Your task to perform on an android device: Open Chrome and go to the settings page Image 0: 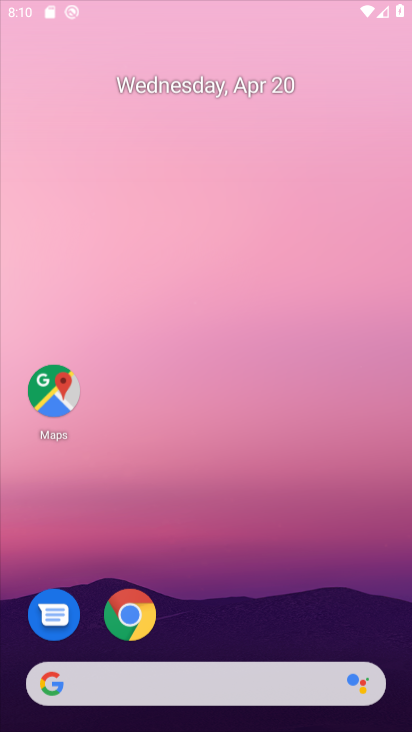
Step 0: drag from (403, 530) to (404, 0)
Your task to perform on an android device: Open Chrome and go to the settings page Image 1: 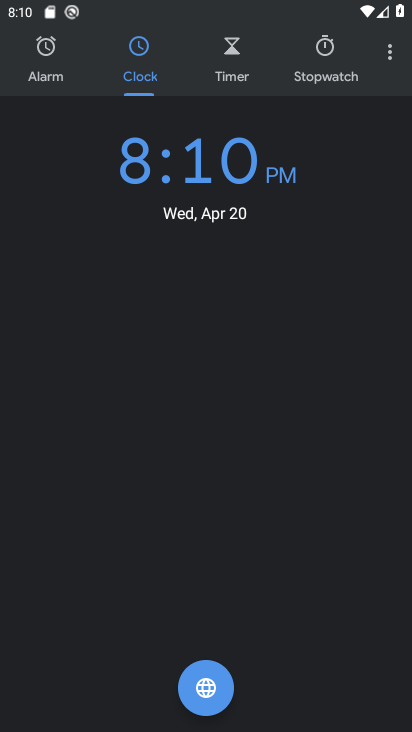
Step 1: press home button
Your task to perform on an android device: Open Chrome and go to the settings page Image 2: 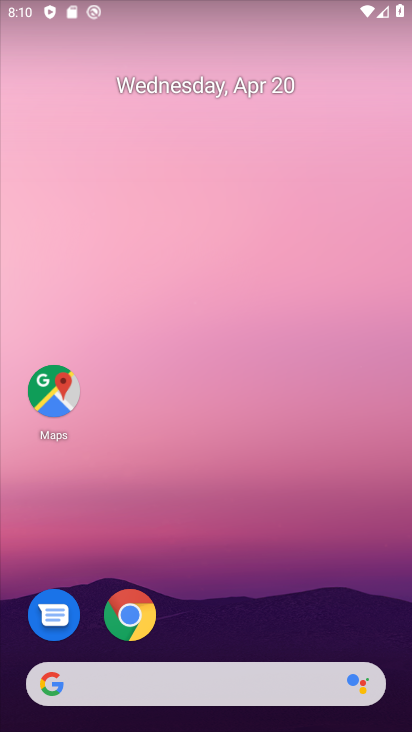
Step 2: drag from (254, 680) to (283, 68)
Your task to perform on an android device: Open Chrome and go to the settings page Image 3: 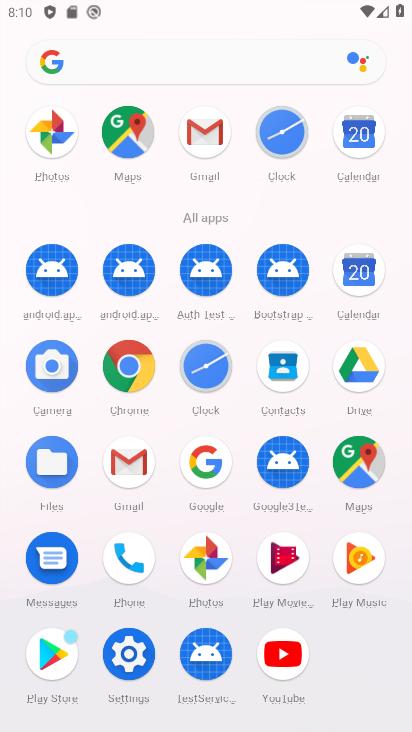
Step 3: click (132, 379)
Your task to perform on an android device: Open Chrome and go to the settings page Image 4: 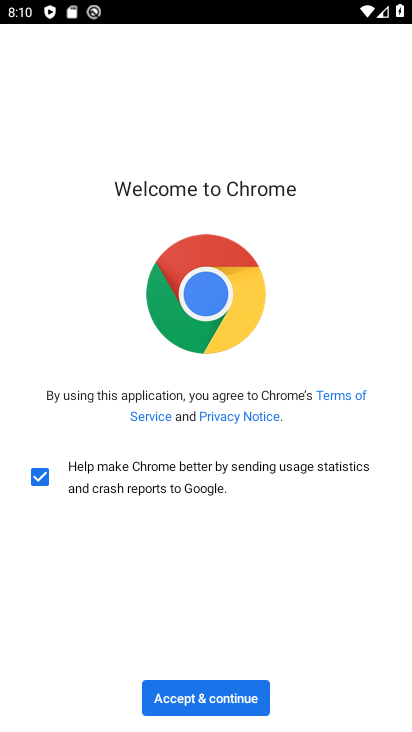
Step 4: click (220, 688)
Your task to perform on an android device: Open Chrome and go to the settings page Image 5: 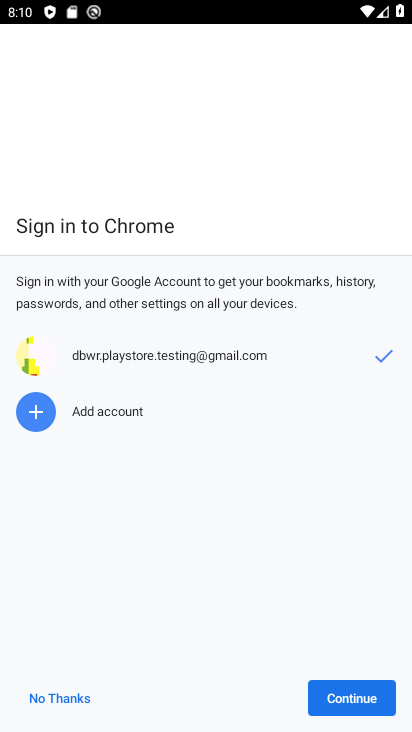
Step 5: click (383, 689)
Your task to perform on an android device: Open Chrome and go to the settings page Image 6: 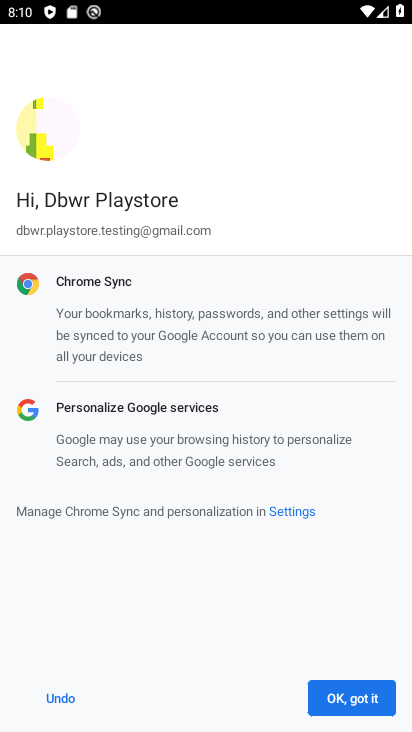
Step 6: click (383, 688)
Your task to perform on an android device: Open Chrome and go to the settings page Image 7: 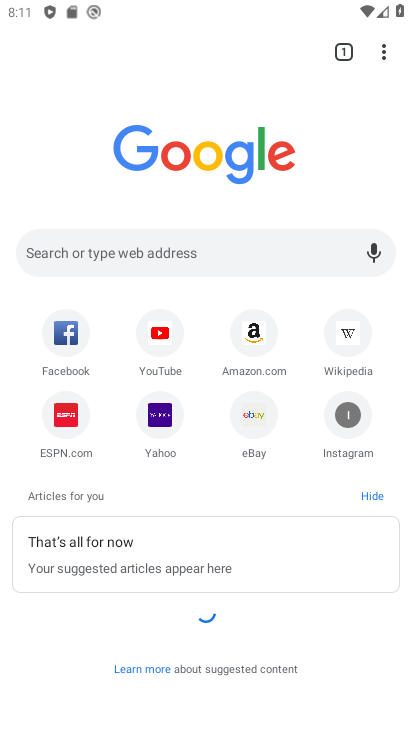
Step 7: click (379, 58)
Your task to perform on an android device: Open Chrome and go to the settings page Image 8: 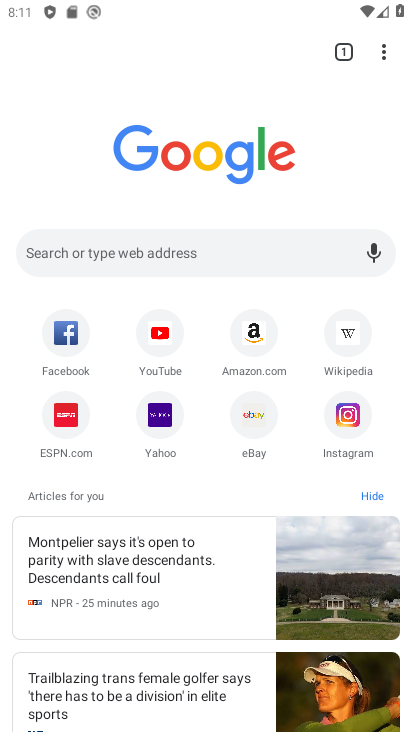
Step 8: click (379, 58)
Your task to perform on an android device: Open Chrome and go to the settings page Image 9: 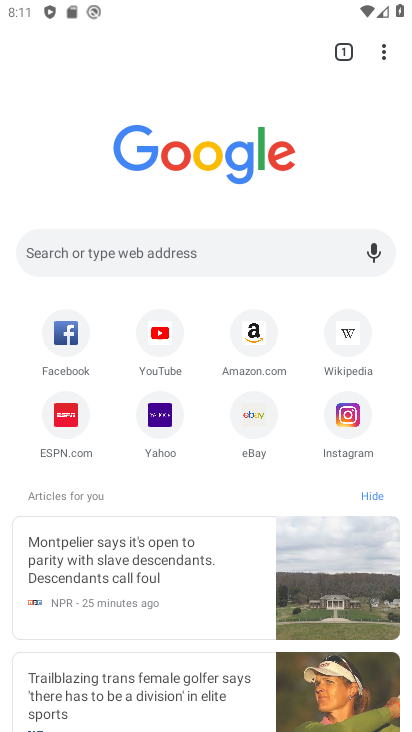
Step 9: click (388, 53)
Your task to perform on an android device: Open Chrome and go to the settings page Image 10: 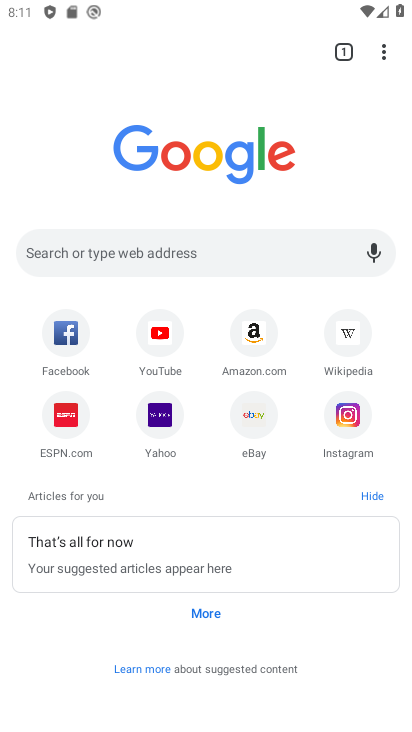
Step 10: click (386, 57)
Your task to perform on an android device: Open Chrome and go to the settings page Image 11: 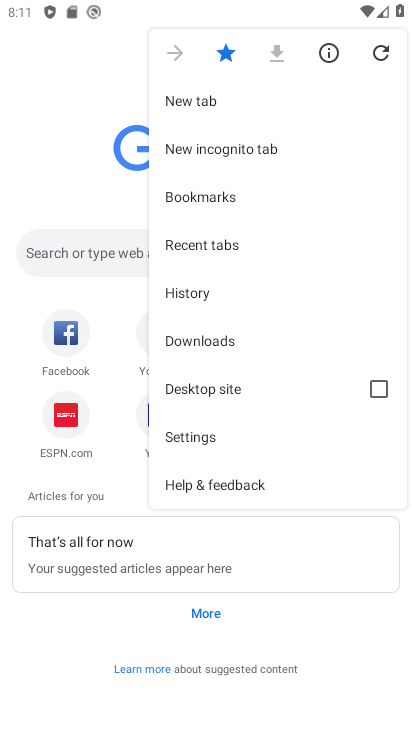
Step 11: click (218, 442)
Your task to perform on an android device: Open Chrome and go to the settings page Image 12: 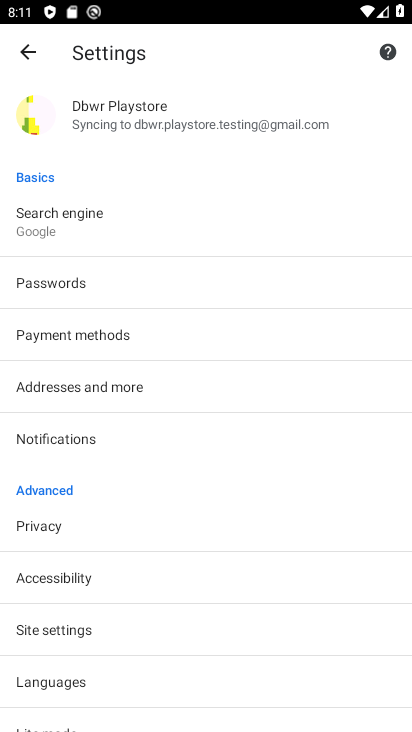
Step 12: task complete